Your task to perform on an android device: check android version Image 0: 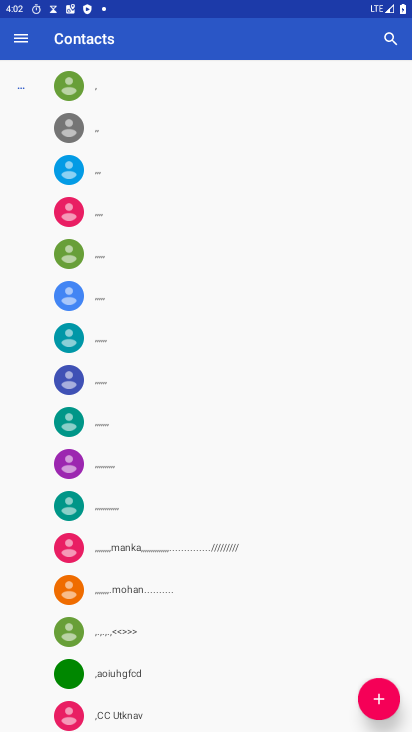
Step 0: press home button
Your task to perform on an android device: check android version Image 1: 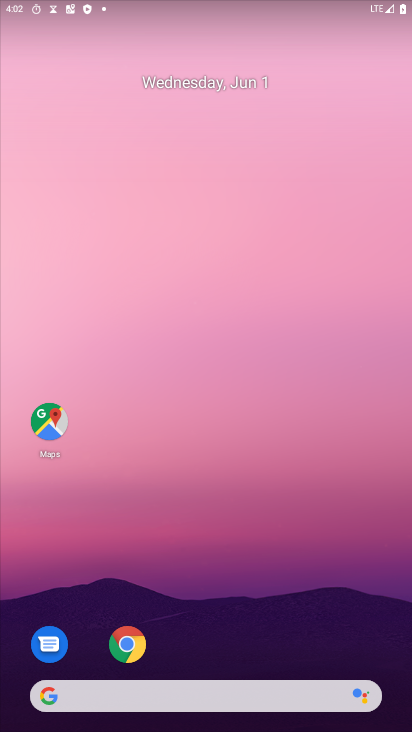
Step 1: drag from (316, 666) to (331, 255)
Your task to perform on an android device: check android version Image 2: 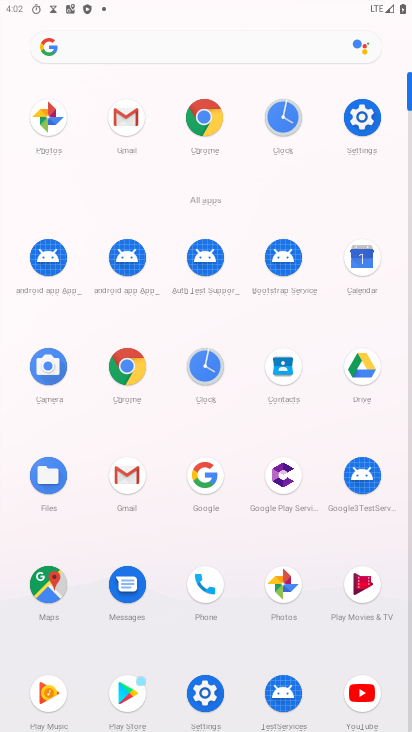
Step 2: click (352, 132)
Your task to perform on an android device: check android version Image 3: 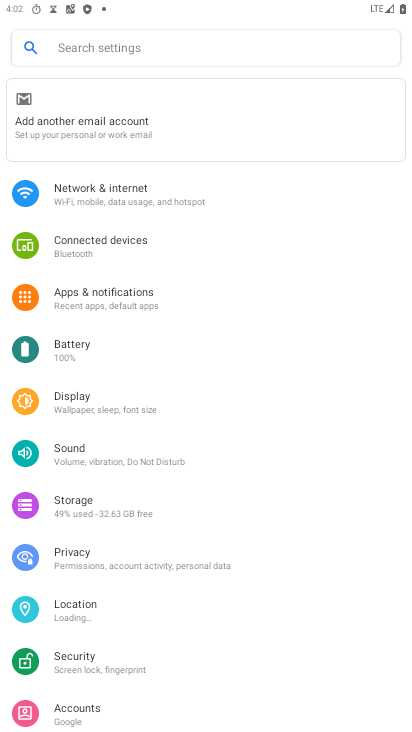
Step 3: drag from (314, 693) to (390, 35)
Your task to perform on an android device: check android version Image 4: 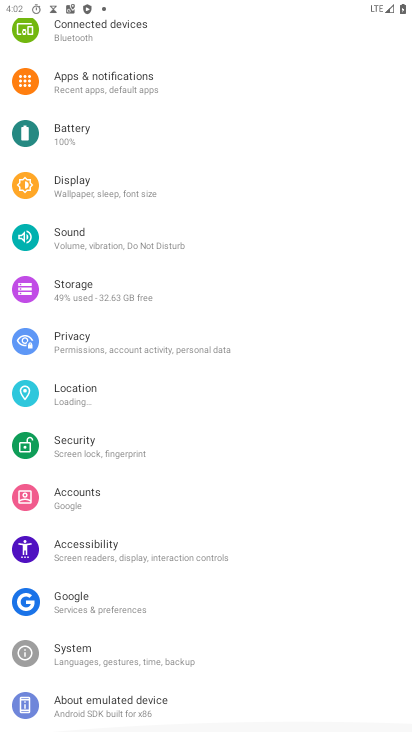
Step 4: click (107, 702)
Your task to perform on an android device: check android version Image 5: 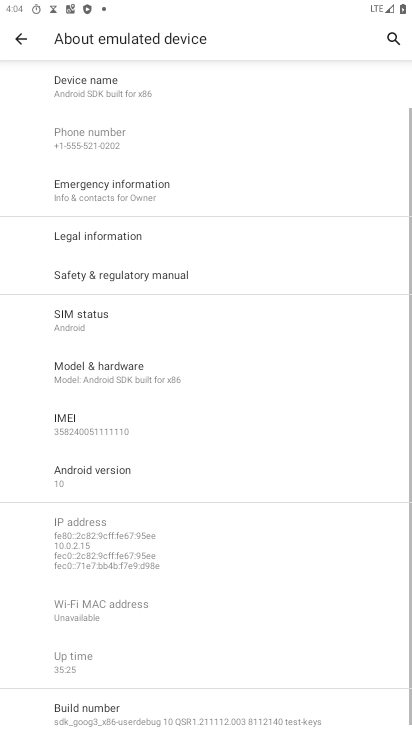
Step 5: task complete